Your task to perform on an android device: turn off javascript in the chrome app Image 0: 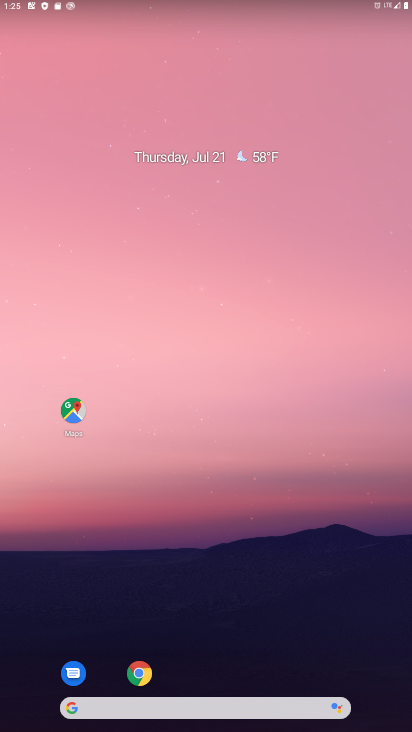
Step 0: drag from (209, 666) to (234, 334)
Your task to perform on an android device: turn off javascript in the chrome app Image 1: 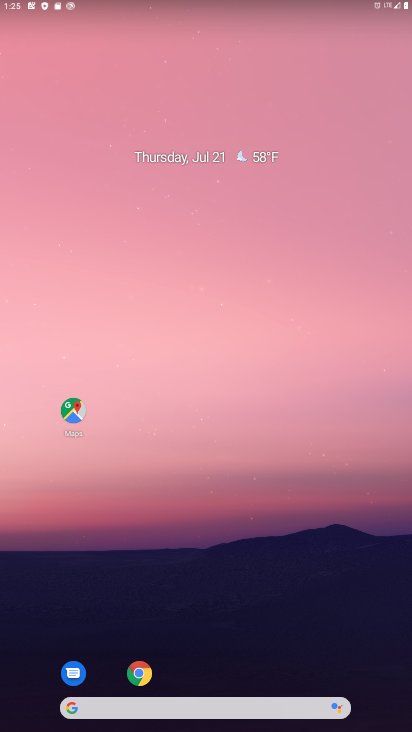
Step 1: drag from (194, 658) to (230, 284)
Your task to perform on an android device: turn off javascript in the chrome app Image 2: 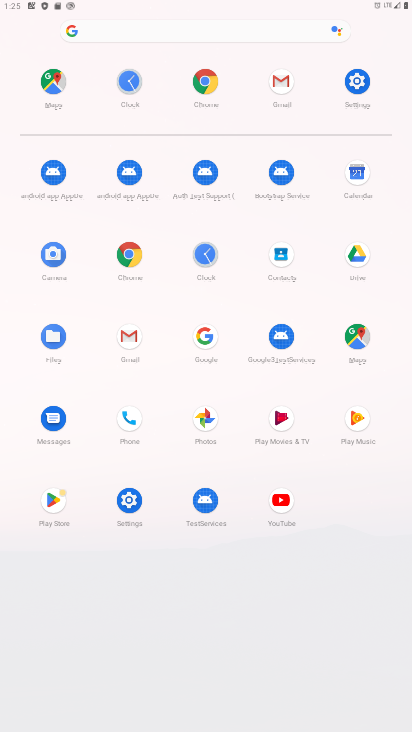
Step 2: click (210, 78)
Your task to perform on an android device: turn off javascript in the chrome app Image 3: 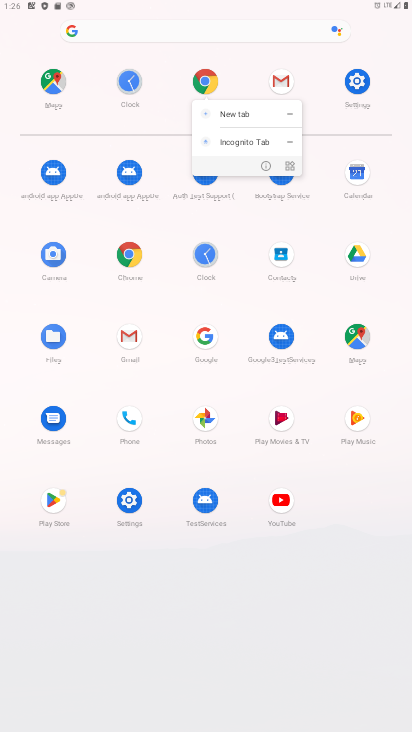
Step 3: click (198, 78)
Your task to perform on an android device: turn off javascript in the chrome app Image 4: 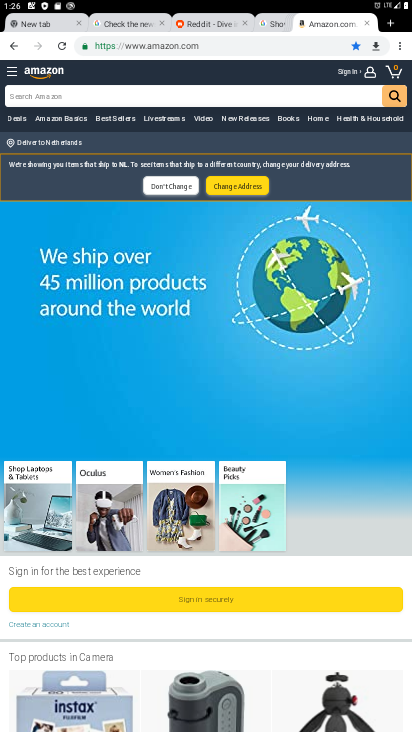
Step 4: click (402, 46)
Your task to perform on an android device: turn off javascript in the chrome app Image 5: 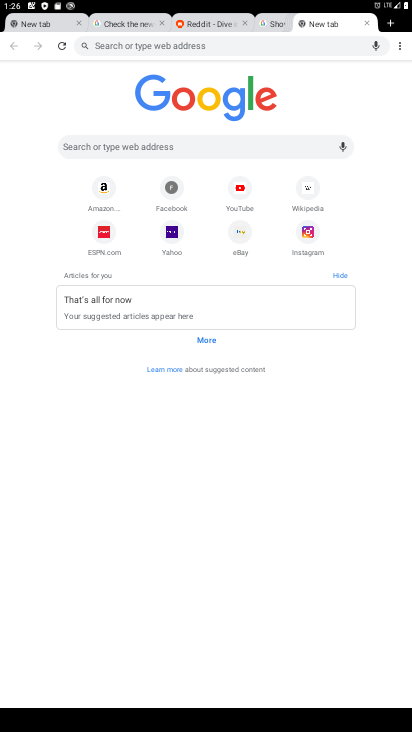
Step 5: click (404, 47)
Your task to perform on an android device: turn off javascript in the chrome app Image 6: 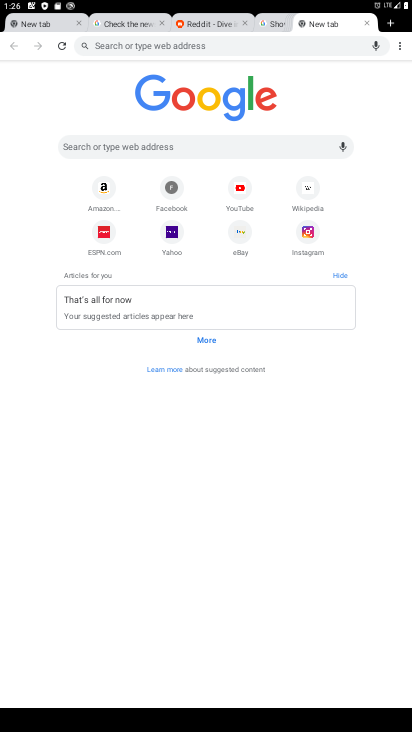
Step 6: click (411, 43)
Your task to perform on an android device: turn off javascript in the chrome app Image 7: 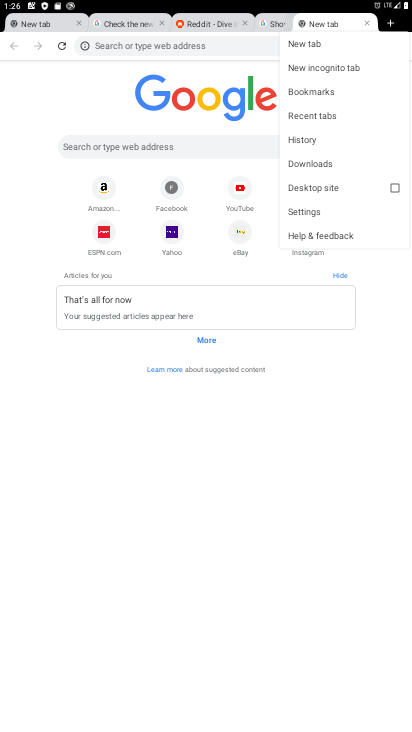
Step 7: click (320, 209)
Your task to perform on an android device: turn off javascript in the chrome app Image 8: 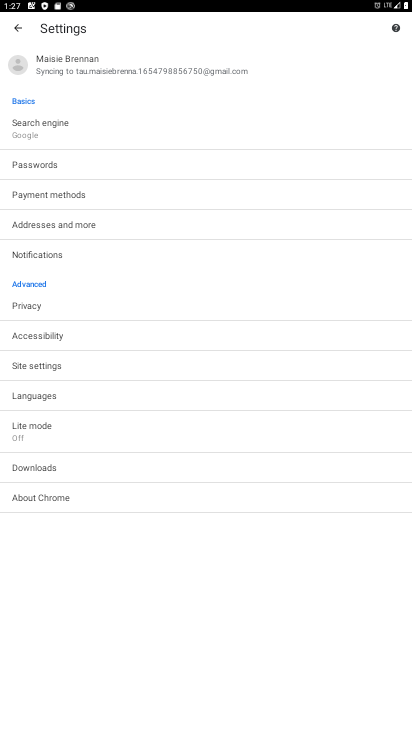
Step 8: click (105, 368)
Your task to perform on an android device: turn off javascript in the chrome app Image 9: 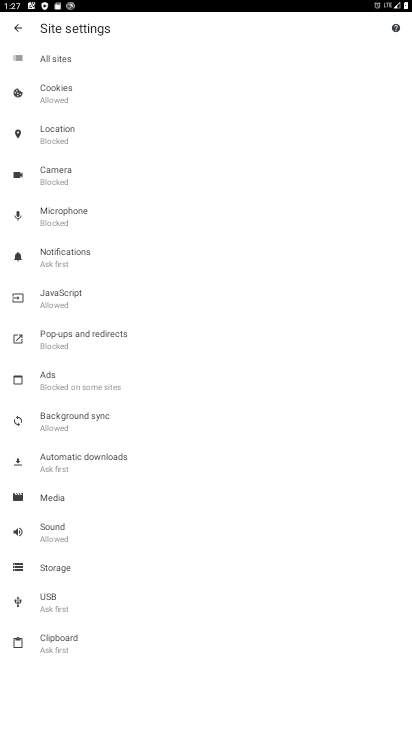
Step 9: click (91, 288)
Your task to perform on an android device: turn off javascript in the chrome app Image 10: 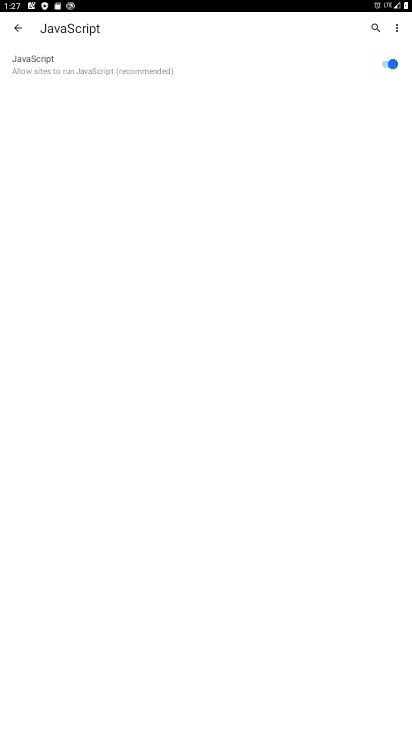
Step 10: click (395, 57)
Your task to perform on an android device: turn off javascript in the chrome app Image 11: 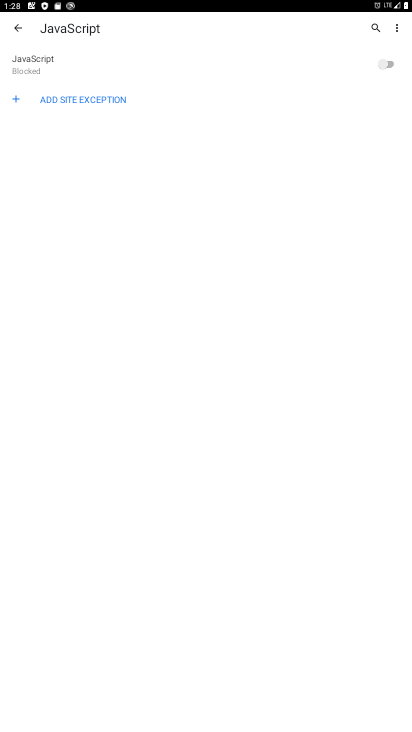
Step 11: task complete